Your task to perform on an android device: Open the web browser Image 0: 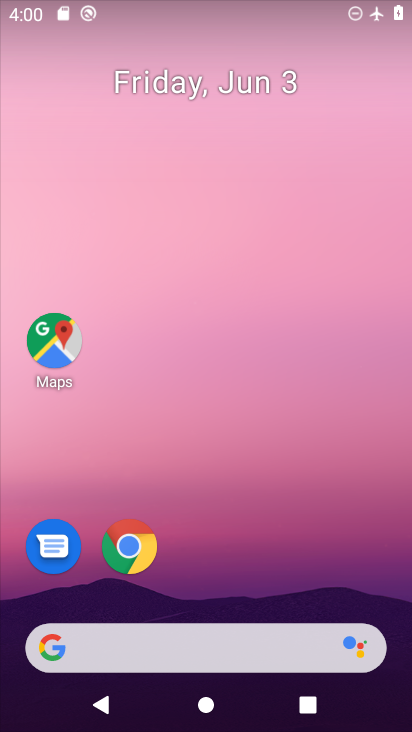
Step 0: click (231, 642)
Your task to perform on an android device: Open the web browser Image 1: 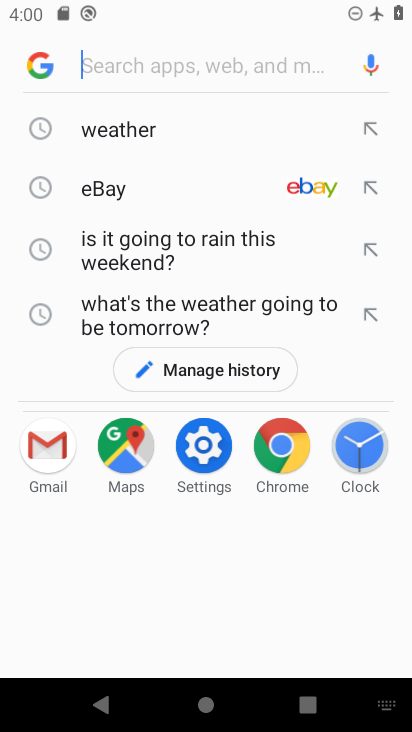
Step 1: task complete